Your task to perform on an android device: toggle javascript in the chrome app Image 0: 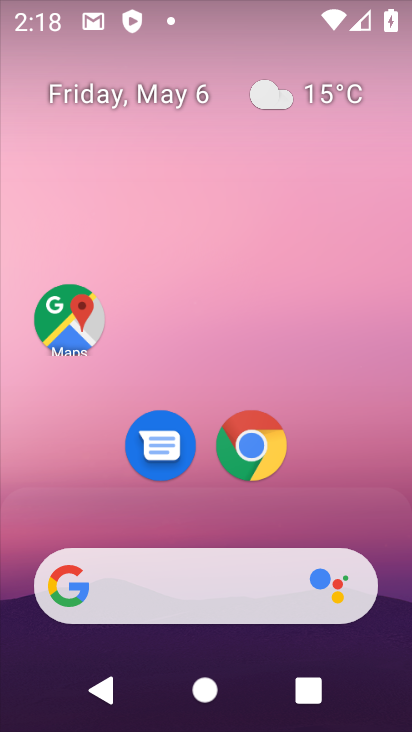
Step 0: click (263, 447)
Your task to perform on an android device: toggle javascript in the chrome app Image 1: 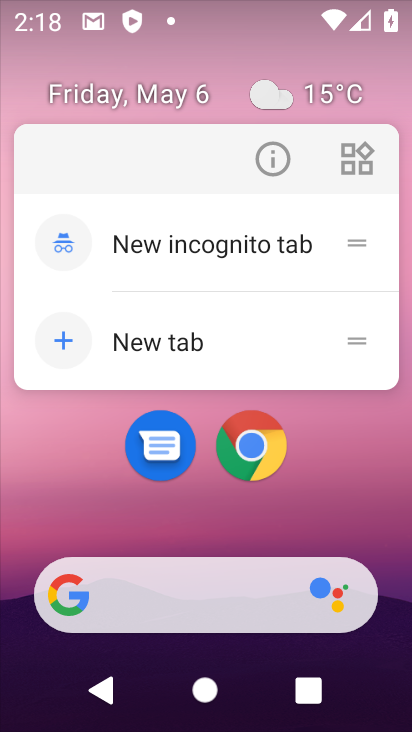
Step 1: click (253, 440)
Your task to perform on an android device: toggle javascript in the chrome app Image 2: 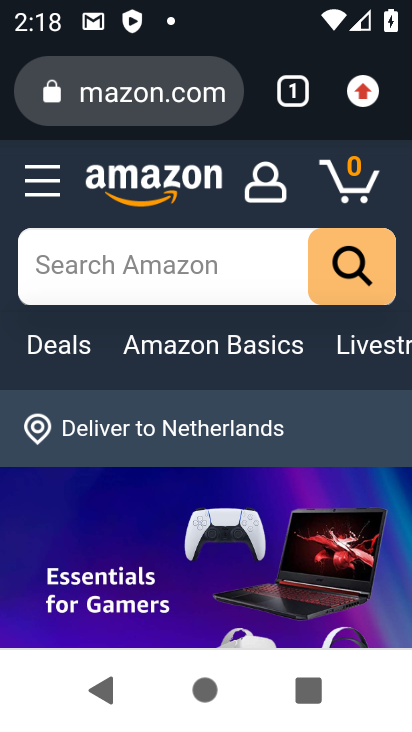
Step 2: drag from (352, 103) to (252, 487)
Your task to perform on an android device: toggle javascript in the chrome app Image 3: 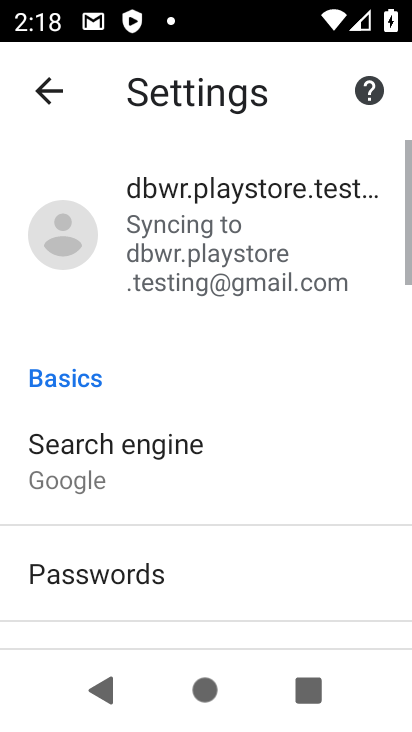
Step 3: drag from (188, 618) to (279, 156)
Your task to perform on an android device: toggle javascript in the chrome app Image 4: 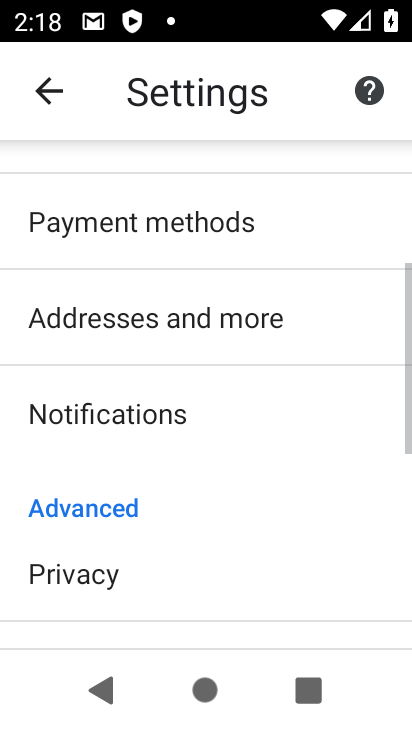
Step 4: drag from (183, 508) to (234, 232)
Your task to perform on an android device: toggle javascript in the chrome app Image 5: 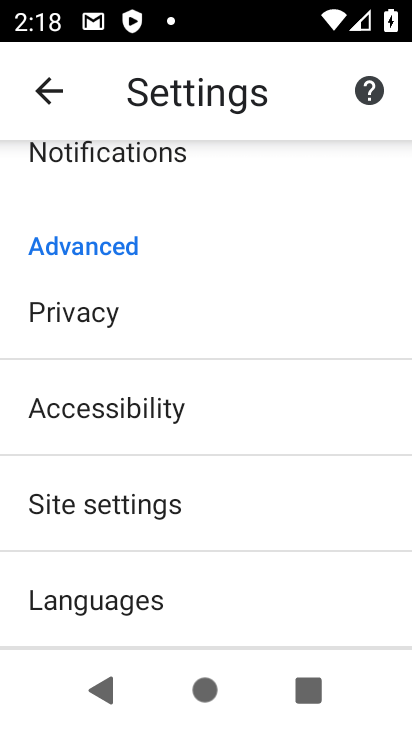
Step 5: click (170, 509)
Your task to perform on an android device: toggle javascript in the chrome app Image 6: 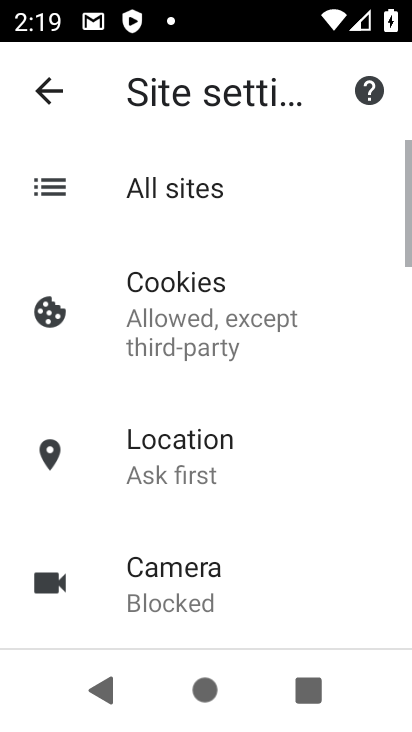
Step 6: drag from (142, 567) to (208, 185)
Your task to perform on an android device: toggle javascript in the chrome app Image 7: 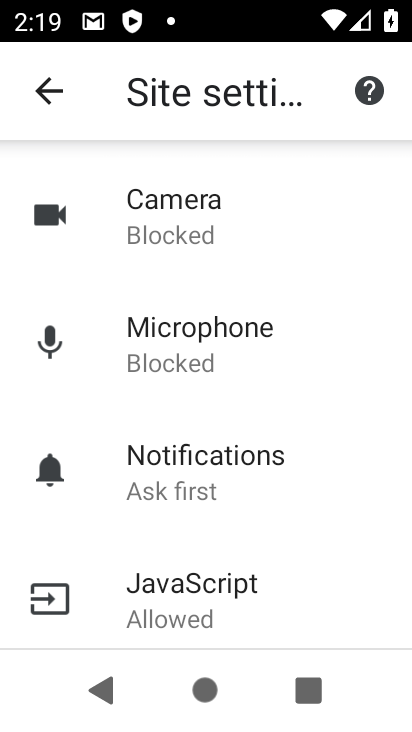
Step 7: click (196, 591)
Your task to perform on an android device: toggle javascript in the chrome app Image 8: 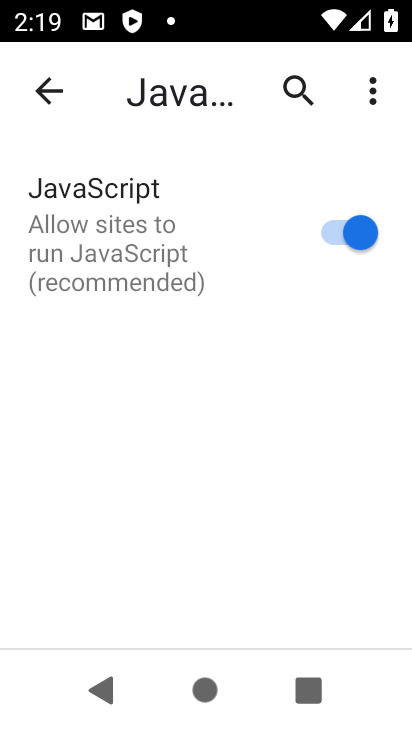
Step 8: click (343, 228)
Your task to perform on an android device: toggle javascript in the chrome app Image 9: 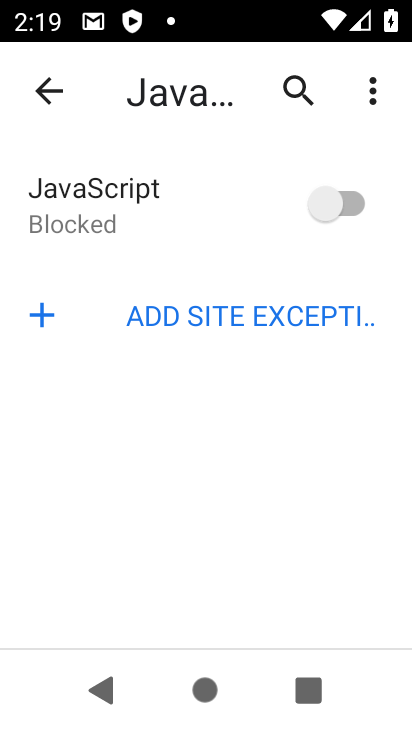
Step 9: task complete